Your task to perform on an android device: change your default location settings in chrome Image 0: 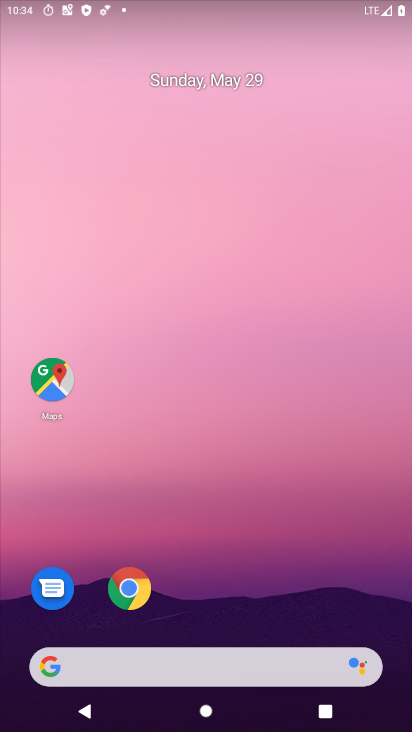
Step 0: drag from (249, 579) to (295, 201)
Your task to perform on an android device: change your default location settings in chrome Image 1: 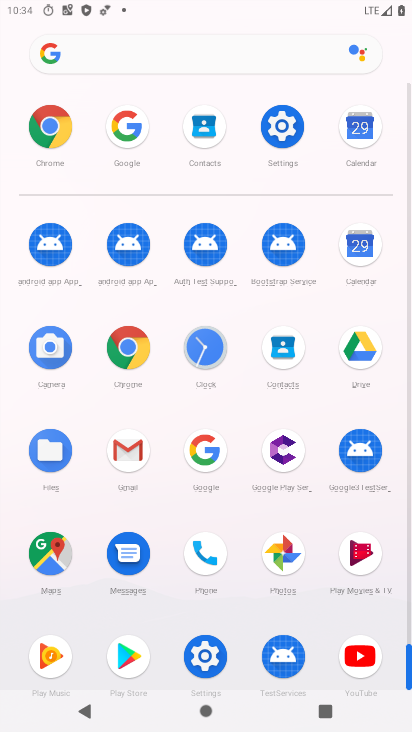
Step 1: click (138, 356)
Your task to perform on an android device: change your default location settings in chrome Image 2: 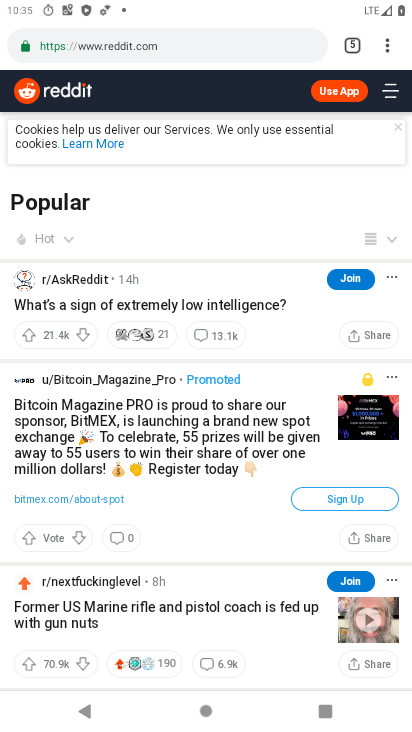
Step 2: click (384, 49)
Your task to perform on an android device: change your default location settings in chrome Image 3: 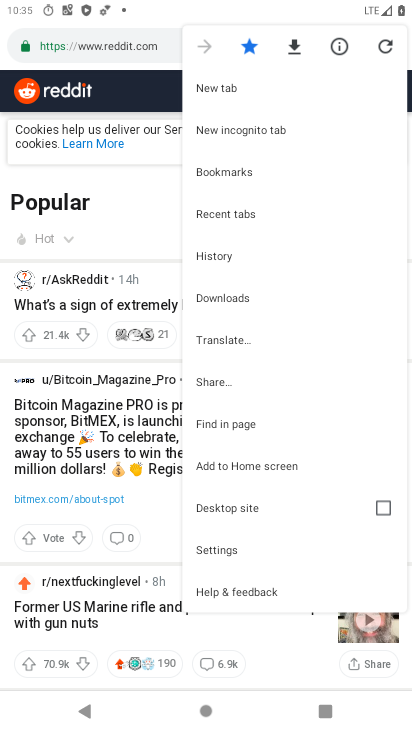
Step 3: click (244, 552)
Your task to perform on an android device: change your default location settings in chrome Image 4: 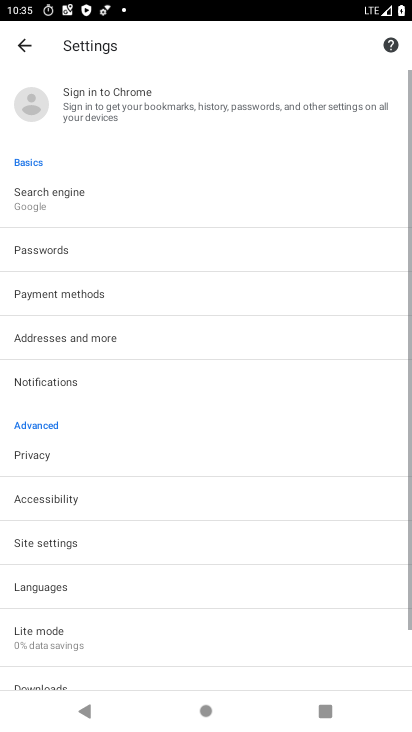
Step 4: click (72, 545)
Your task to perform on an android device: change your default location settings in chrome Image 5: 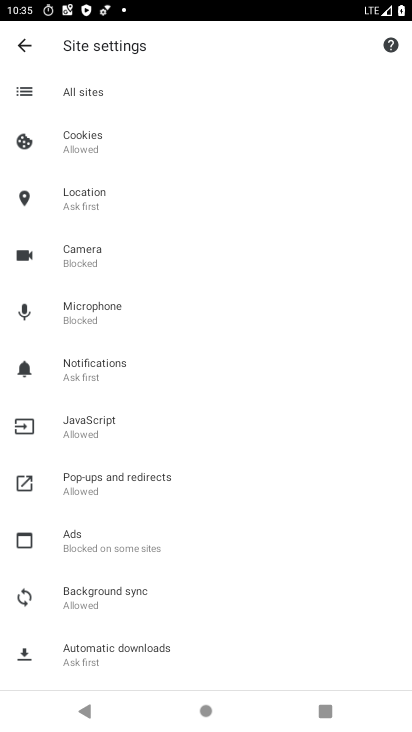
Step 5: click (108, 199)
Your task to perform on an android device: change your default location settings in chrome Image 6: 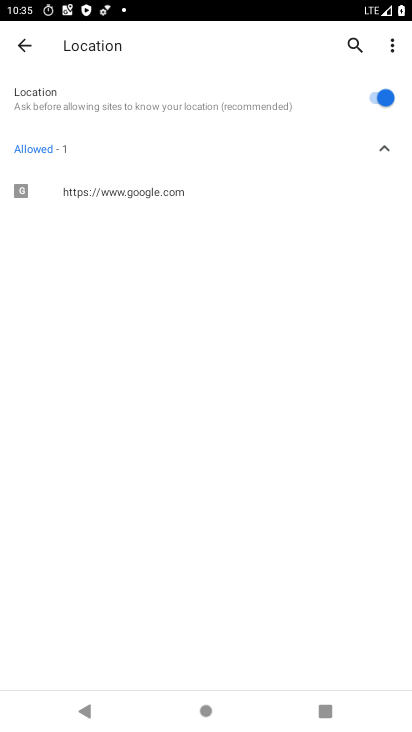
Step 6: task complete